Your task to perform on an android device: toggle data saver in the chrome app Image 0: 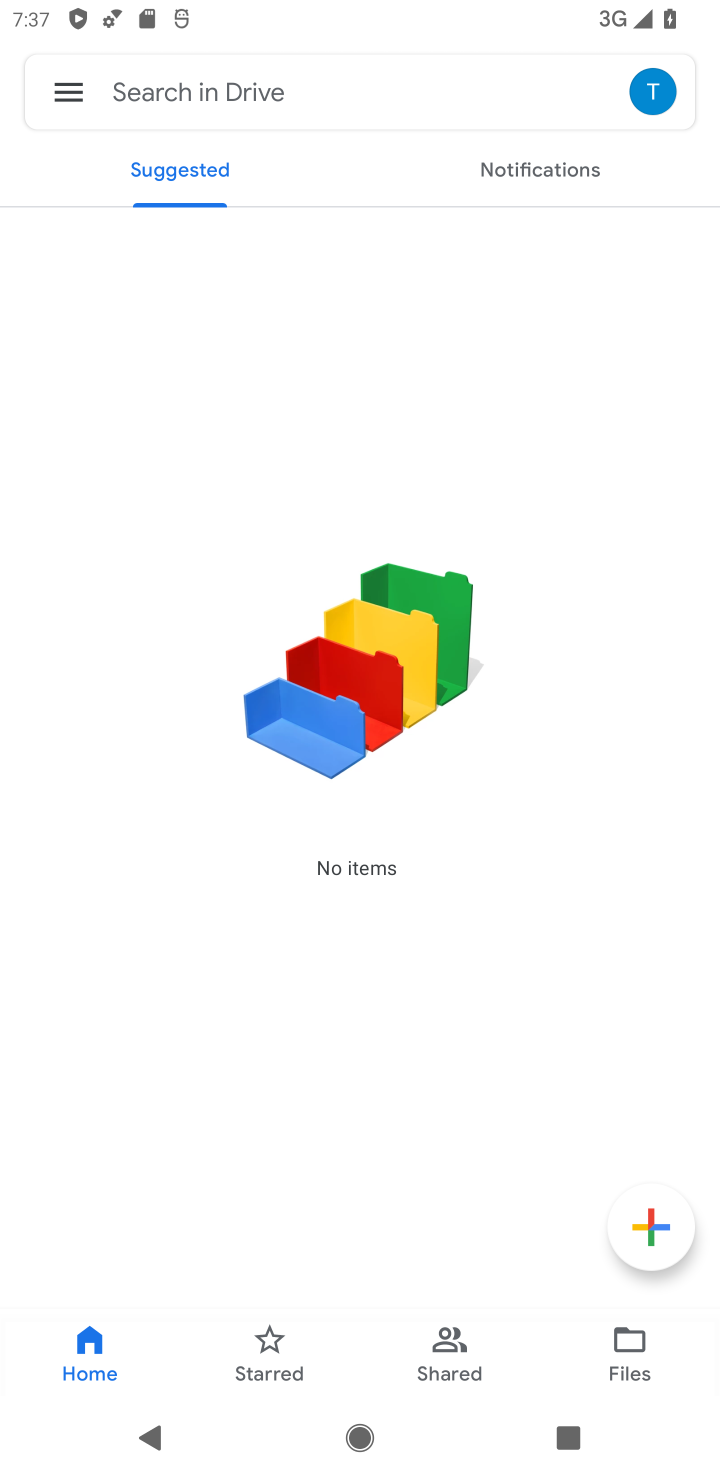
Step 0: press home button
Your task to perform on an android device: toggle data saver in the chrome app Image 1: 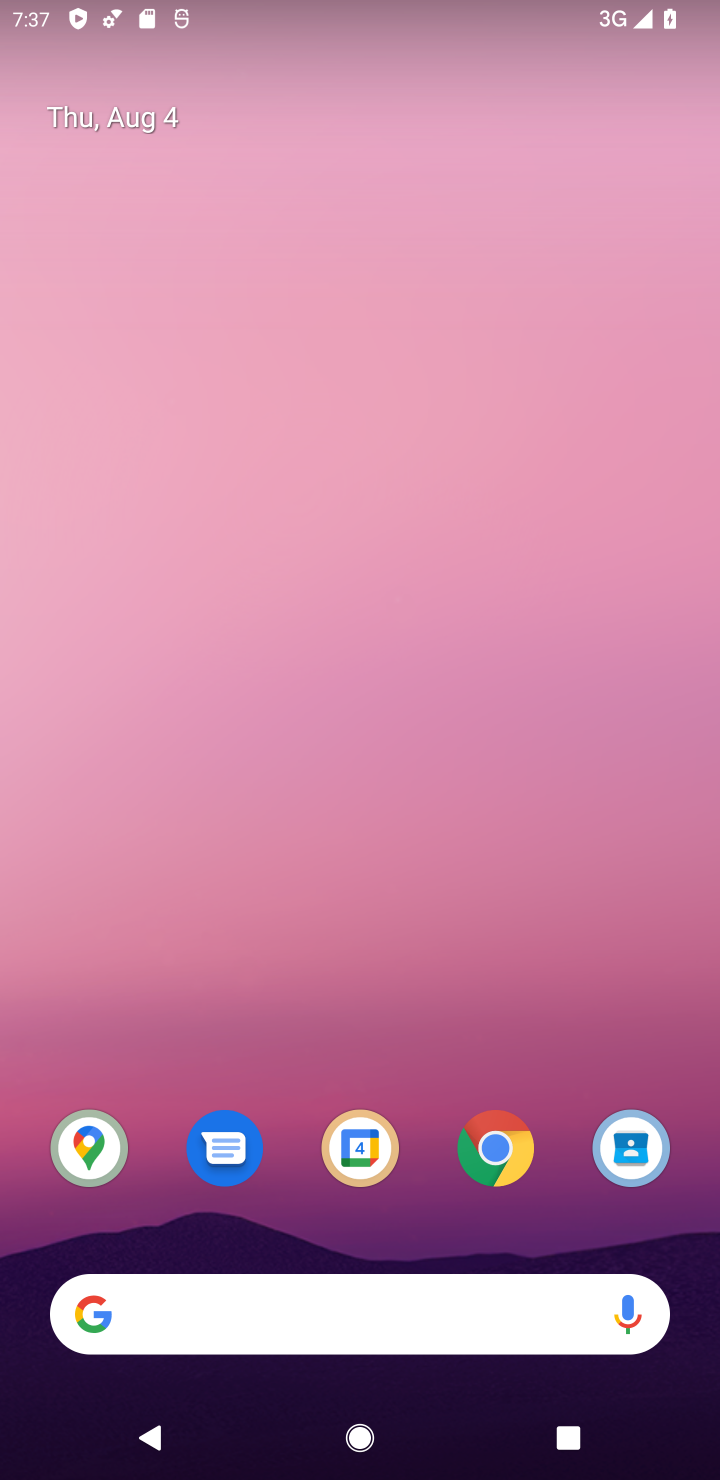
Step 1: click (482, 1155)
Your task to perform on an android device: toggle data saver in the chrome app Image 2: 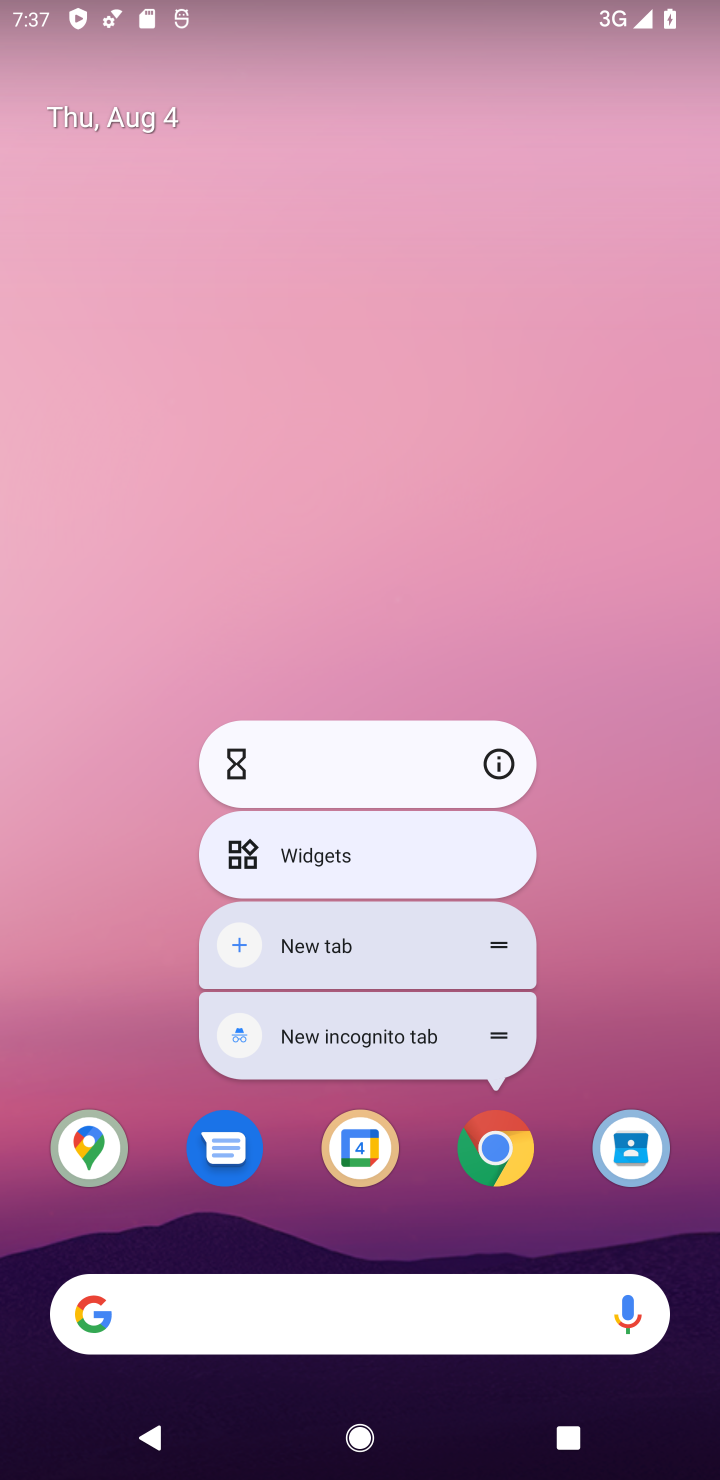
Step 2: click (482, 1155)
Your task to perform on an android device: toggle data saver in the chrome app Image 3: 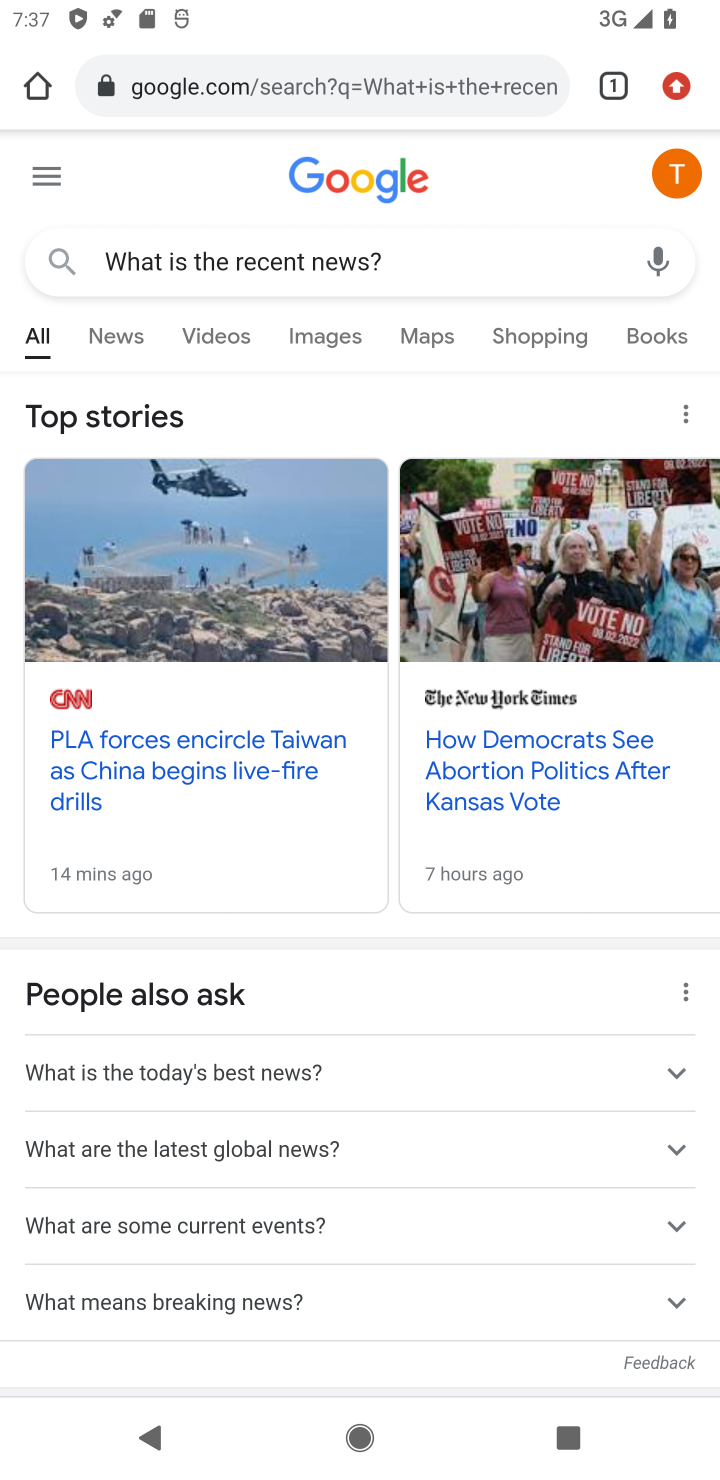
Step 3: click (682, 102)
Your task to perform on an android device: toggle data saver in the chrome app Image 4: 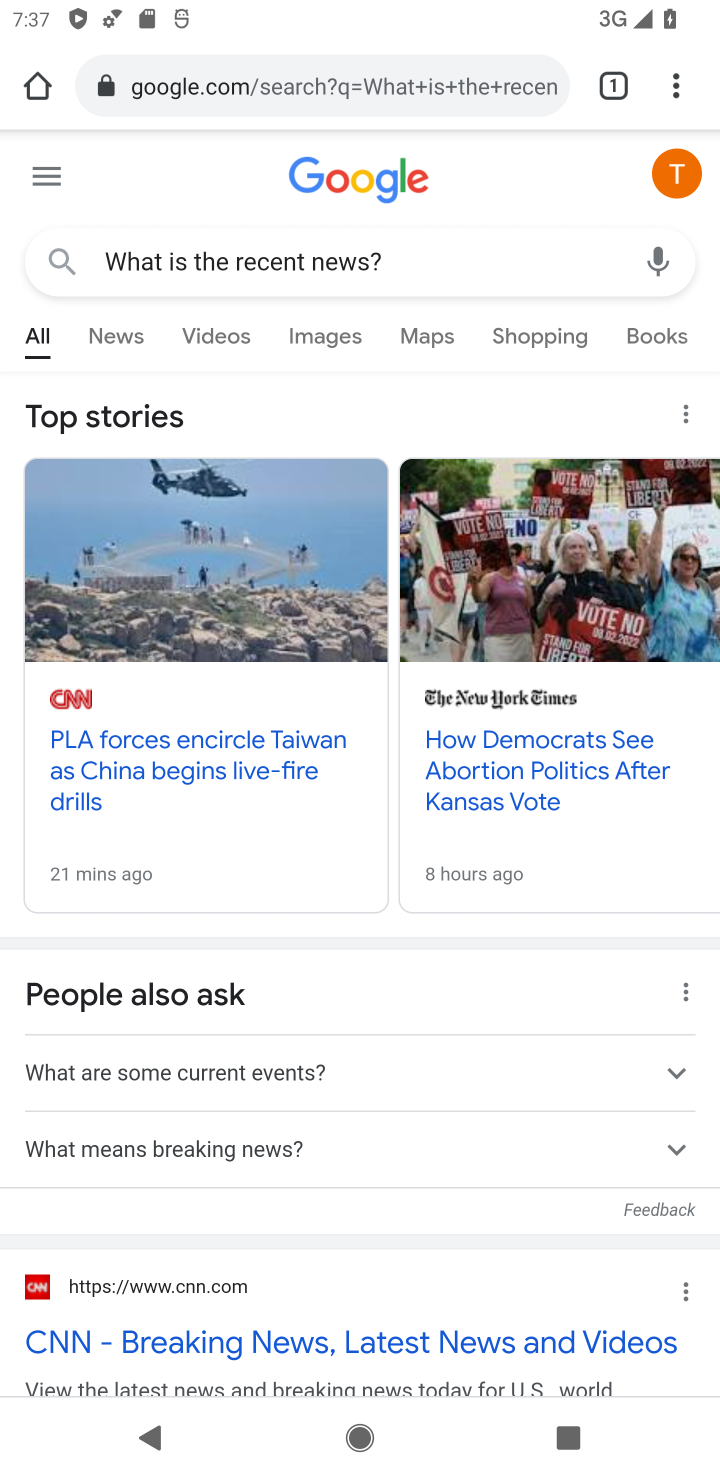
Step 4: click (677, 111)
Your task to perform on an android device: toggle data saver in the chrome app Image 5: 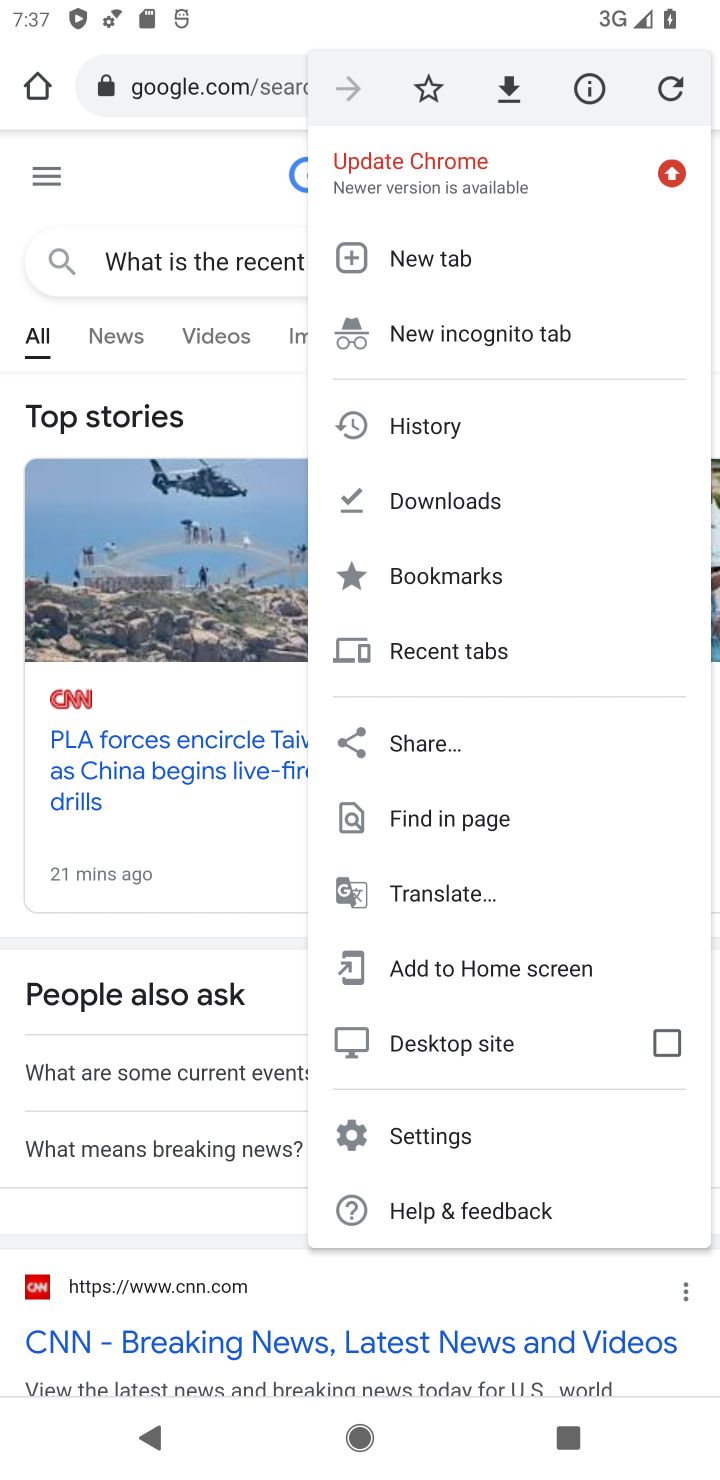
Step 5: click (495, 1138)
Your task to perform on an android device: toggle data saver in the chrome app Image 6: 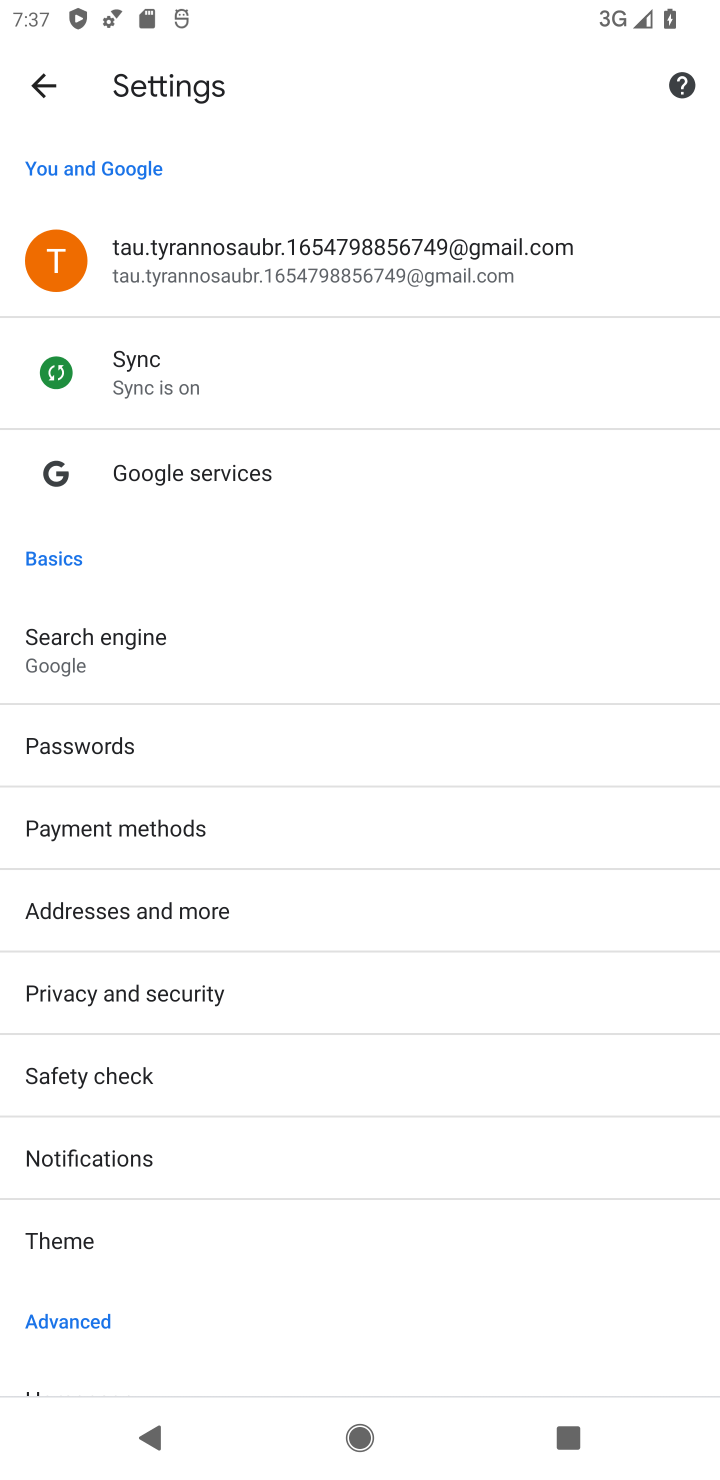
Step 6: click (238, 1279)
Your task to perform on an android device: toggle data saver in the chrome app Image 7: 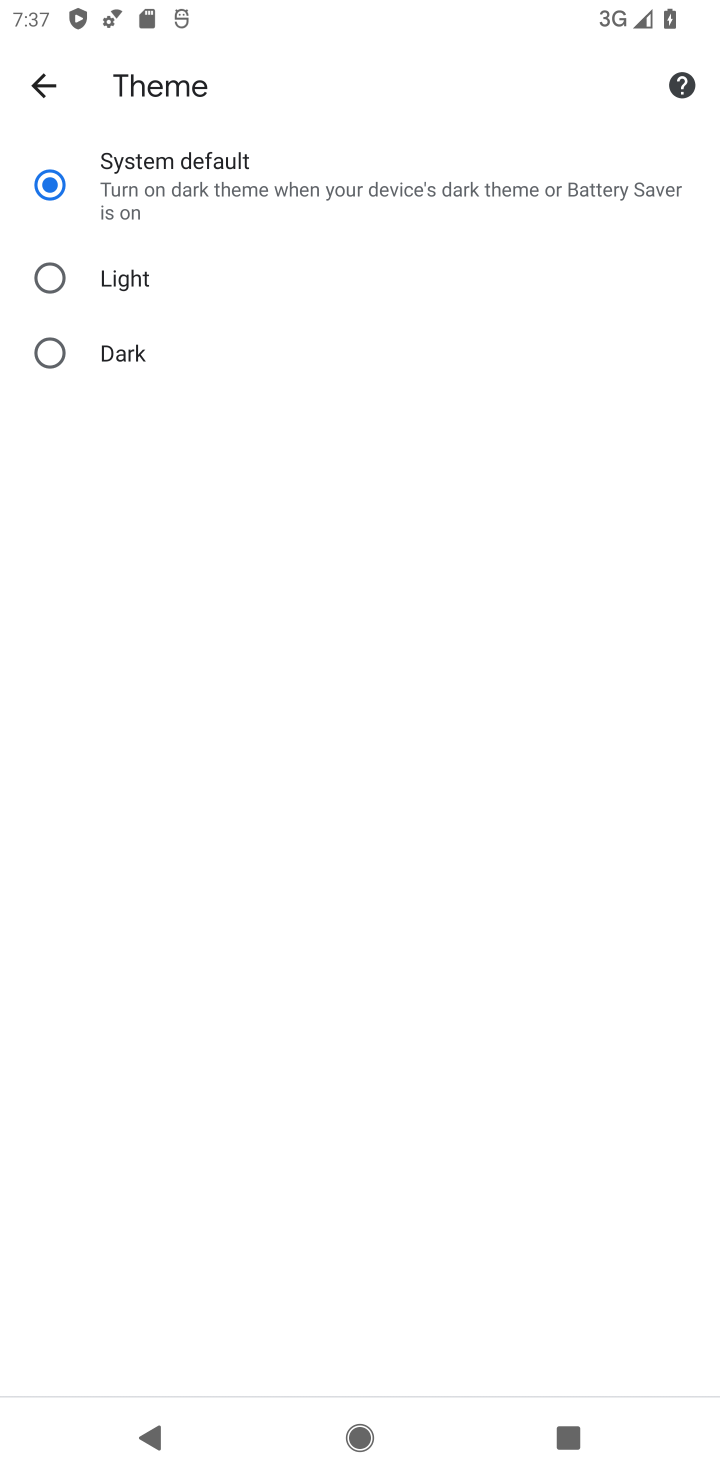
Step 7: drag from (238, 1279) to (357, 225)
Your task to perform on an android device: toggle data saver in the chrome app Image 8: 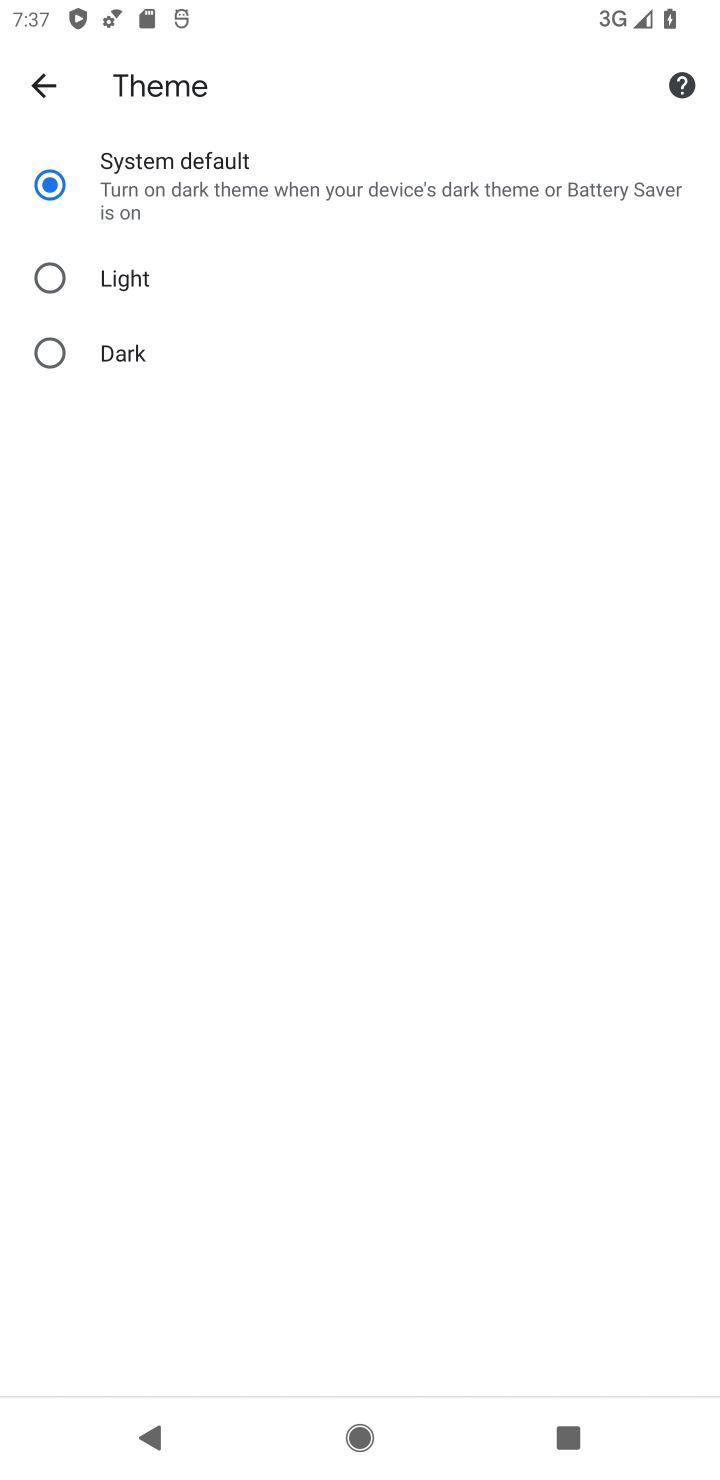
Step 8: click (35, 70)
Your task to perform on an android device: toggle data saver in the chrome app Image 9: 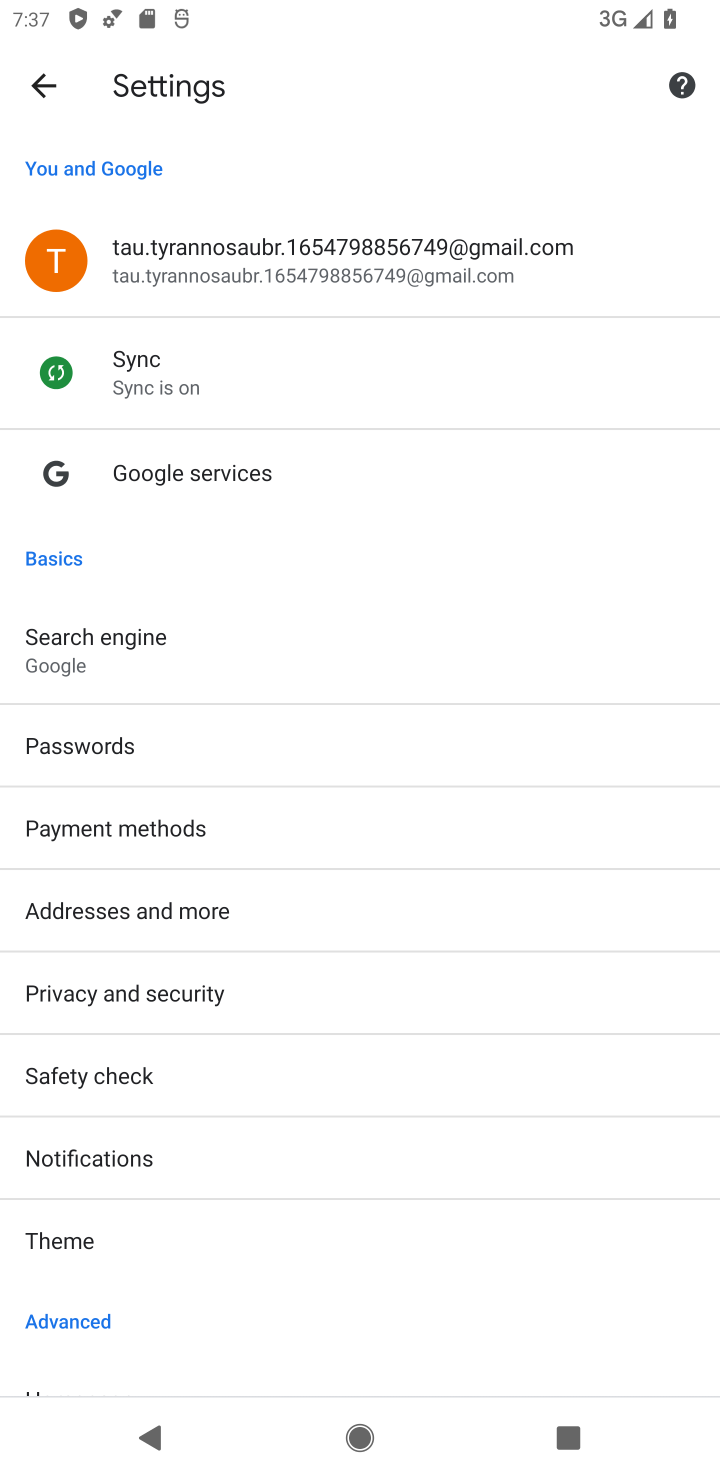
Step 9: drag from (258, 1367) to (468, 159)
Your task to perform on an android device: toggle data saver in the chrome app Image 10: 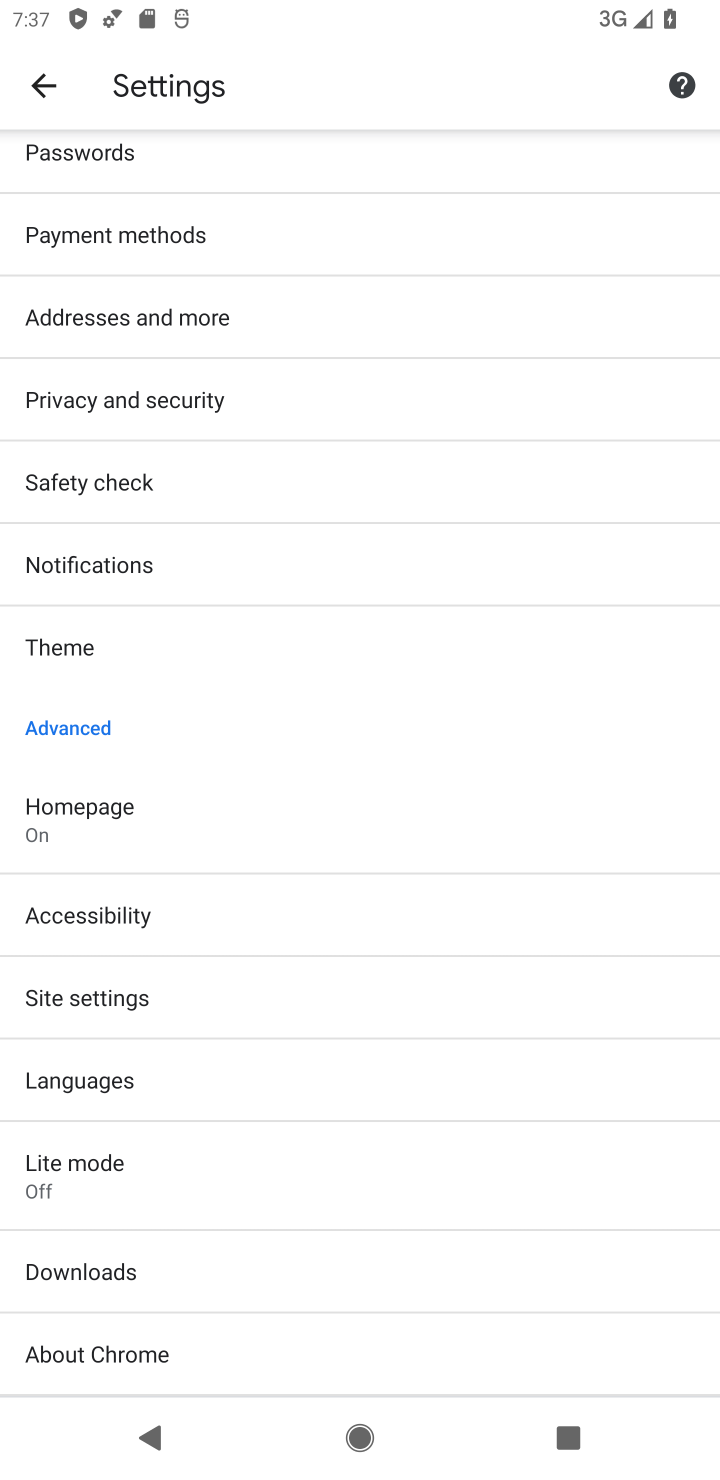
Step 10: click (202, 1153)
Your task to perform on an android device: toggle data saver in the chrome app Image 11: 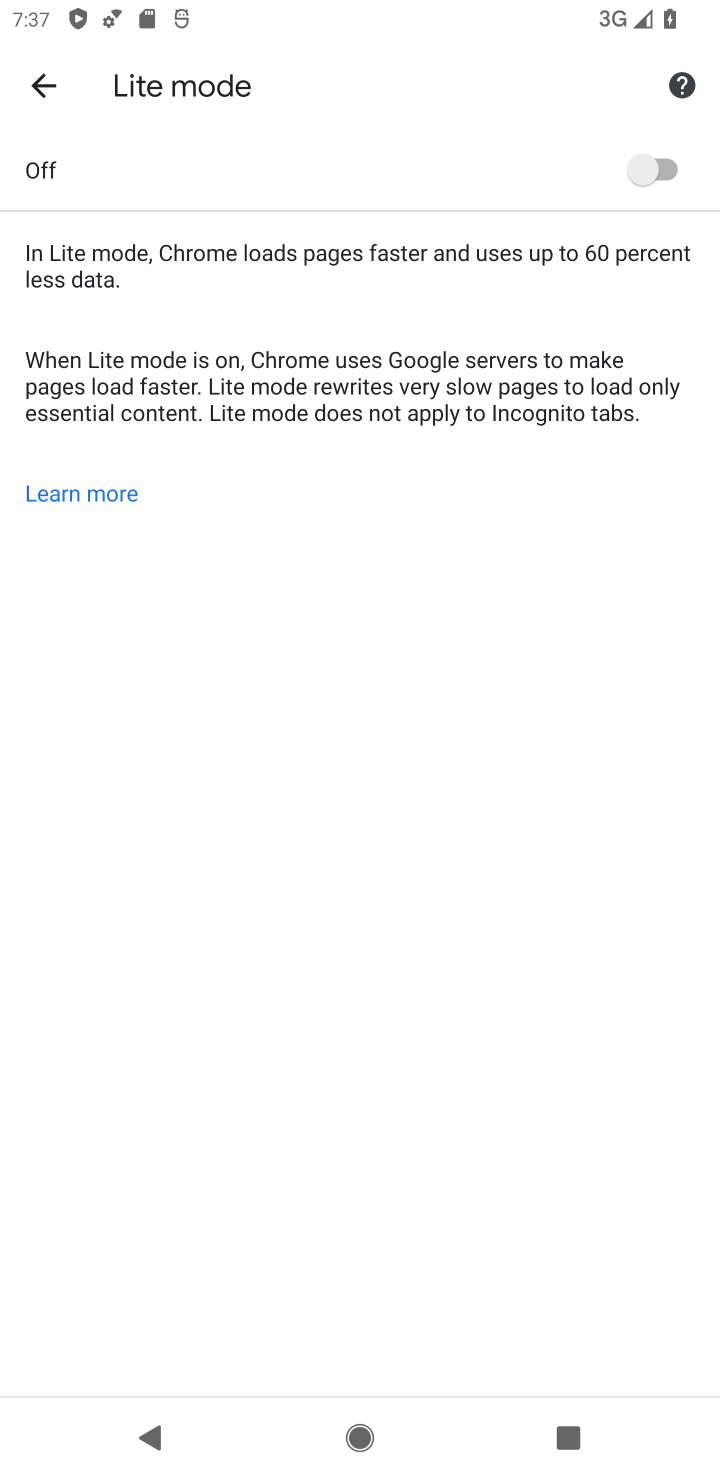
Step 11: click (656, 162)
Your task to perform on an android device: toggle data saver in the chrome app Image 12: 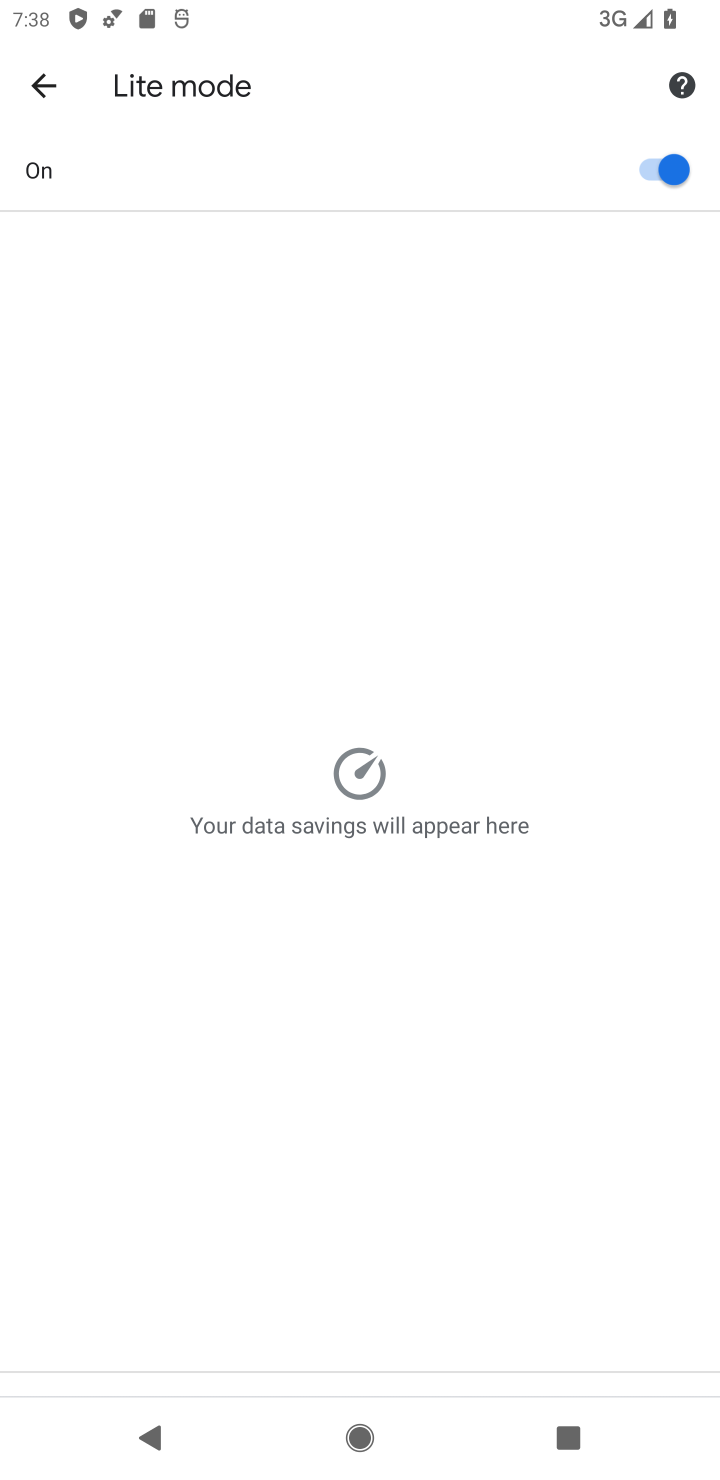
Step 12: task complete